Your task to perform on an android device: open wifi settings Image 0: 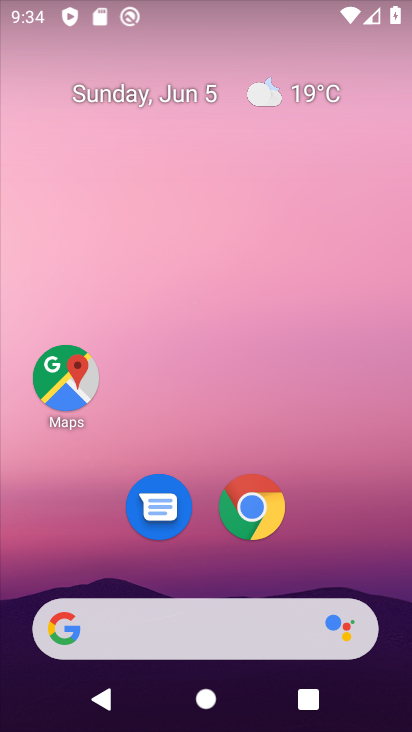
Step 0: drag from (268, 177) to (297, 549)
Your task to perform on an android device: open wifi settings Image 1: 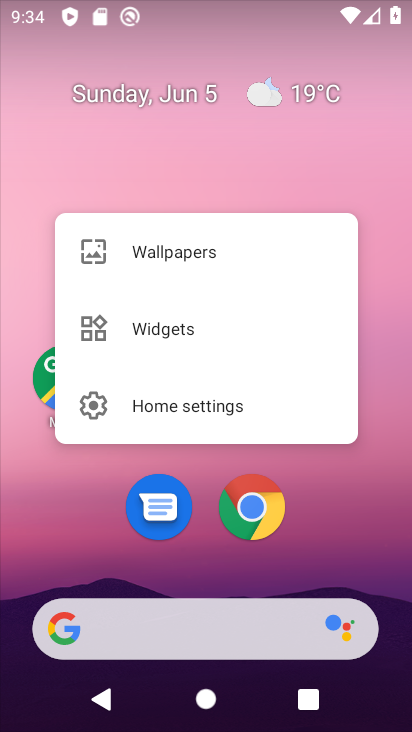
Step 1: drag from (293, 415) to (273, 621)
Your task to perform on an android device: open wifi settings Image 2: 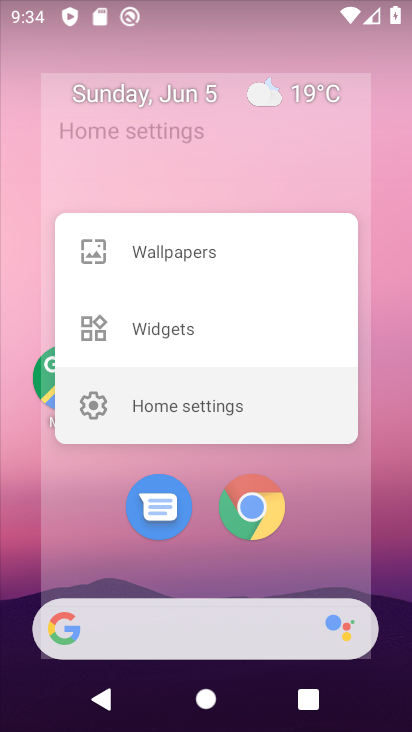
Step 2: drag from (156, 16) to (212, 643)
Your task to perform on an android device: open wifi settings Image 3: 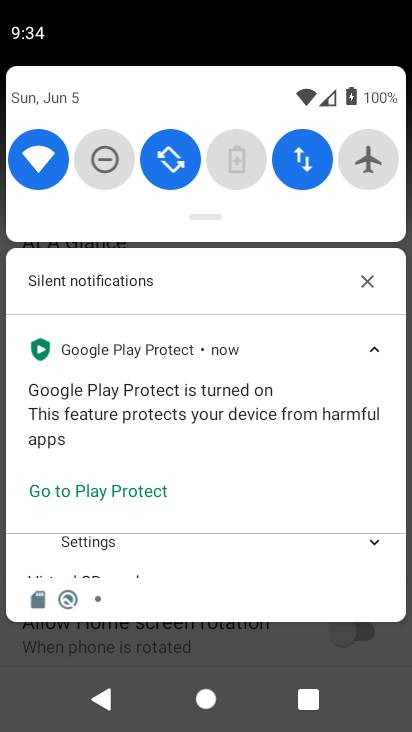
Step 3: click (52, 160)
Your task to perform on an android device: open wifi settings Image 4: 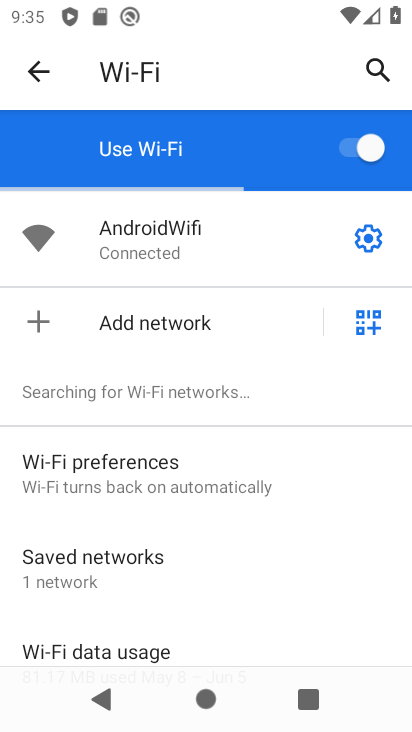
Step 4: task complete